Your task to perform on an android device: Open network settings Image 0: 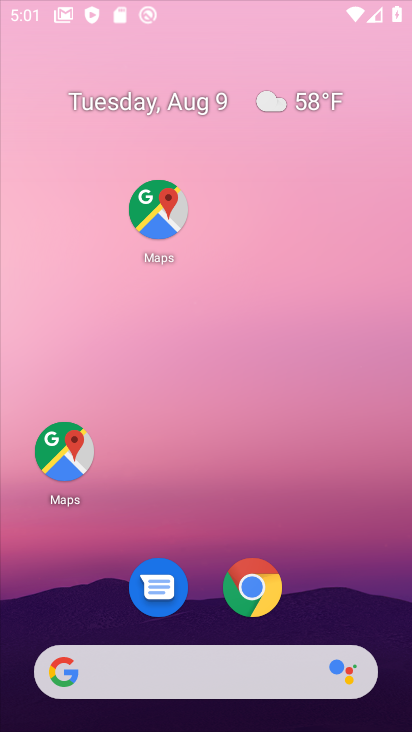
Step 0: drag from (210, 723) to (230, 194)
Your task to perform on an android device: Open network settings Image 1: 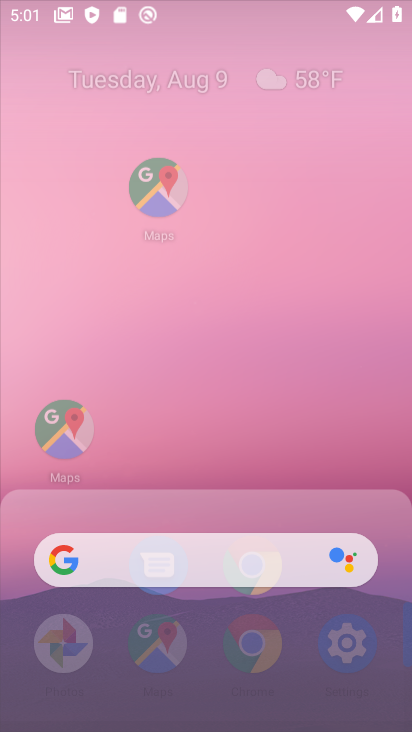
Step 1: drag from (335, 593) to (314, 271)
Your task to perform on an android device: Open network settings Image 2: 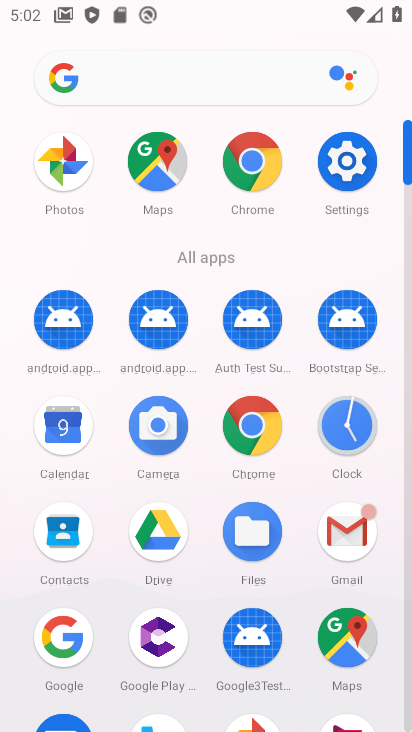
Step 2: click (344, 160)
Your task to perform on an android device: Open network settings Image 3: 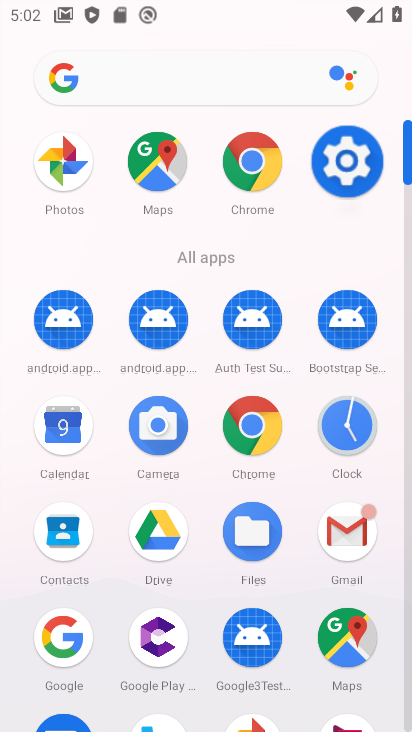
Step 3: click (345, 159)
Your task to perform on an android device: Open network settings Image 4: 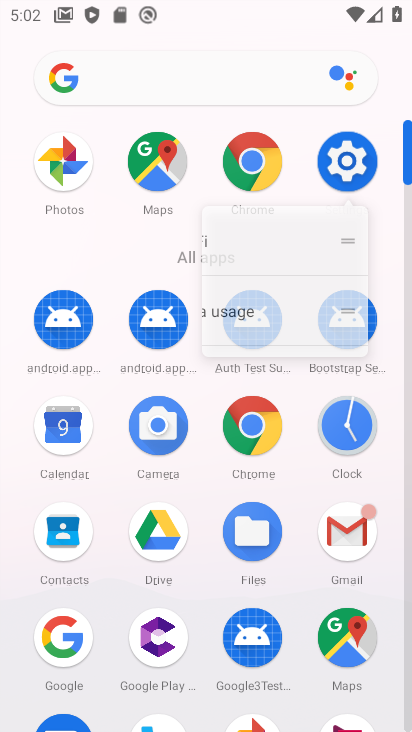
Step 4: click (346, 161)
Your task to perform on an android device: Open network settings Image 5: 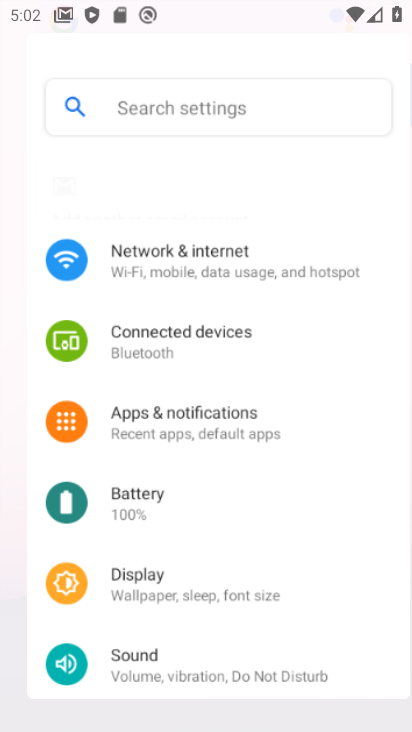
Step 5: click (346, 161)
Your task to perform on an android device: Open network settings Image 6: 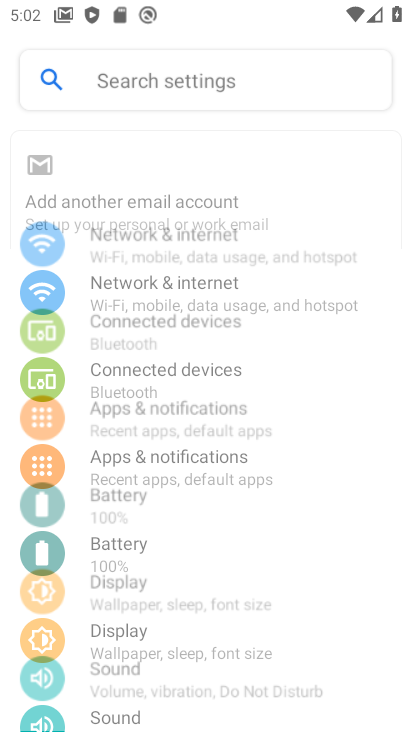
Step 6: click (347, 162)
Your task to perform on an android device: Open network settings Image 7: 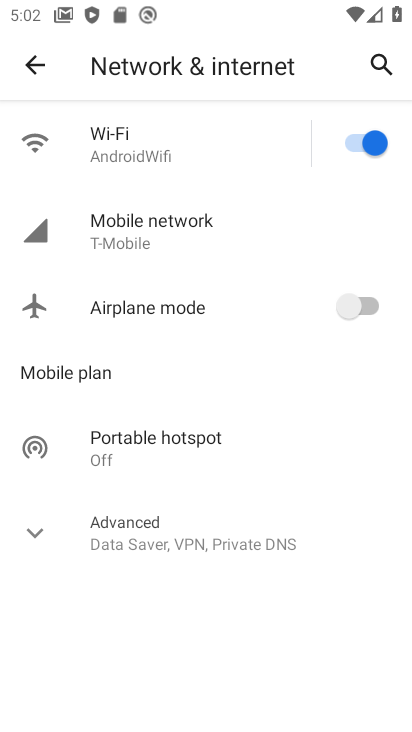
Step 7: click (177, 186)
Your task to perform on an android device: Open network settings Image 8: 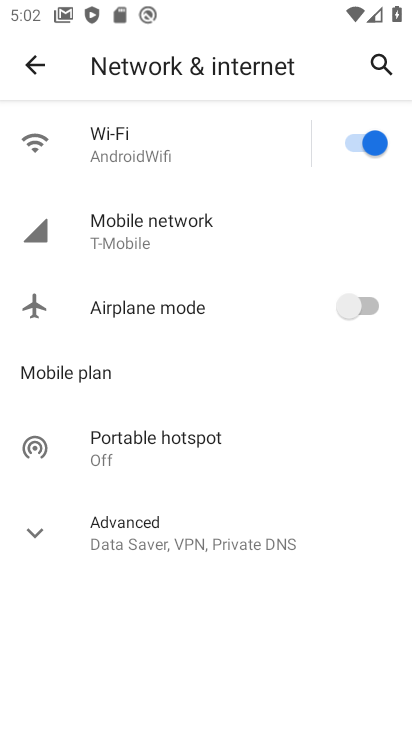
Step 8: click (177, 186)
Your task to perform on an android device: Open network settings Image 9: 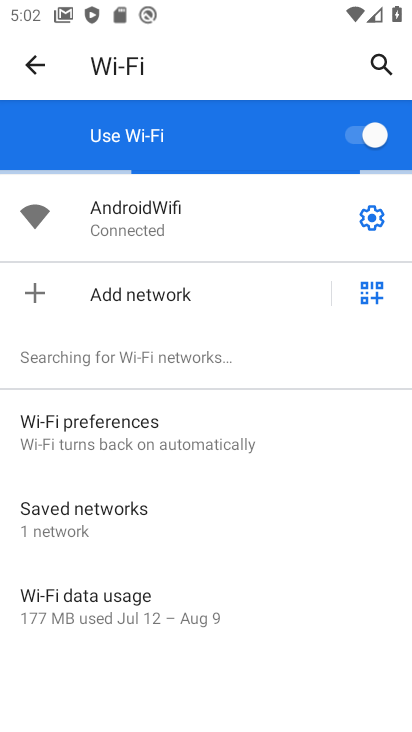
Step 9: task complete